Your task to perform on an android device: turn off notifications settings in the gmail app Image 0: 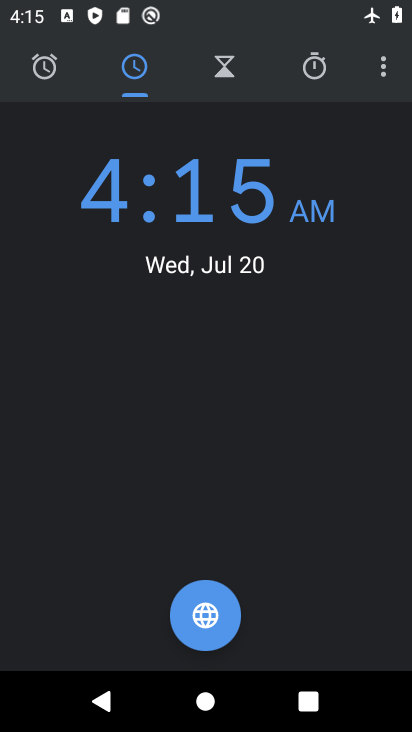
Step 0: press home button
Your task to perform on an android device: turn off notifications settings in the gmail app Image 1: 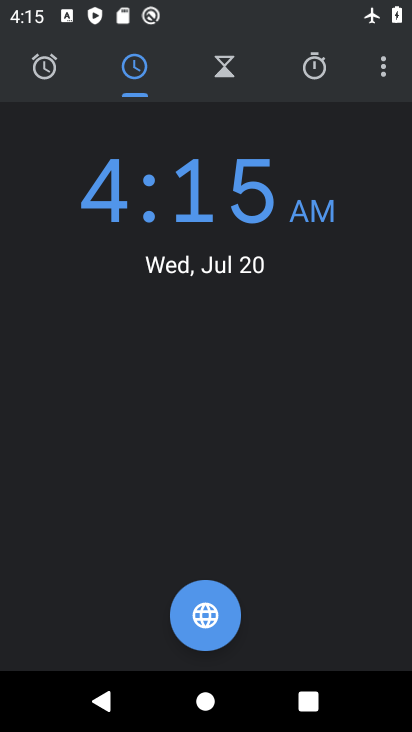
Step 1: press home button
Your task to perform on an android device: turn off notifications settings in the gmail app Image 2: 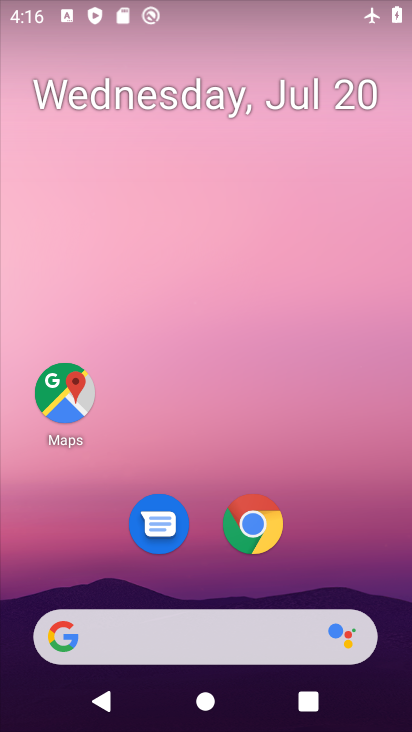
Step 2: drag from (333, 535) to (297, 75)
Your task to perform on an android device: turn off notifications settings in the gmail app Image 3: 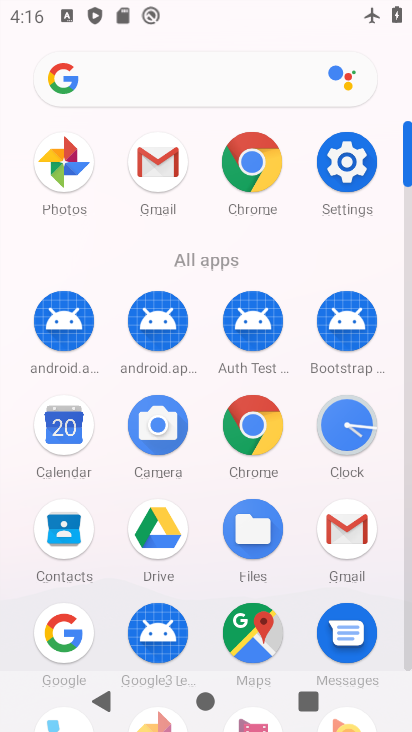
Step 3: click (160, 159)
Your task to perform on an android device: turn off notifications settings in the gmail app Image 4: 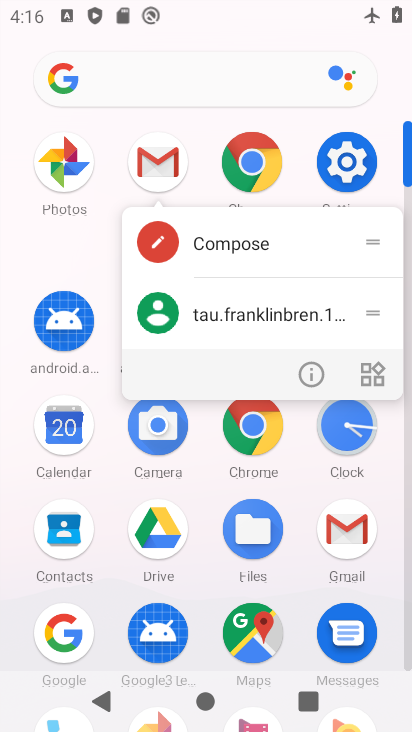
Step 4: click (160, 156)
Your task to perform on an android device: turn off notifications settings in the gmail app Image 5: 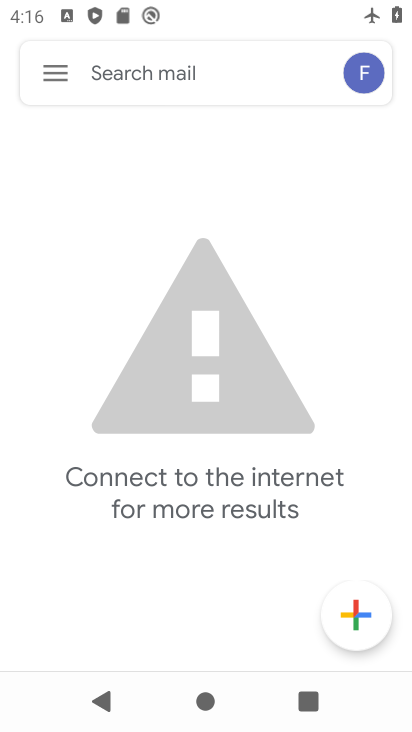
Step 5: click (45, 65)
Your task to perform on an android device: turn off notifications settings in the gmail app Image 6: 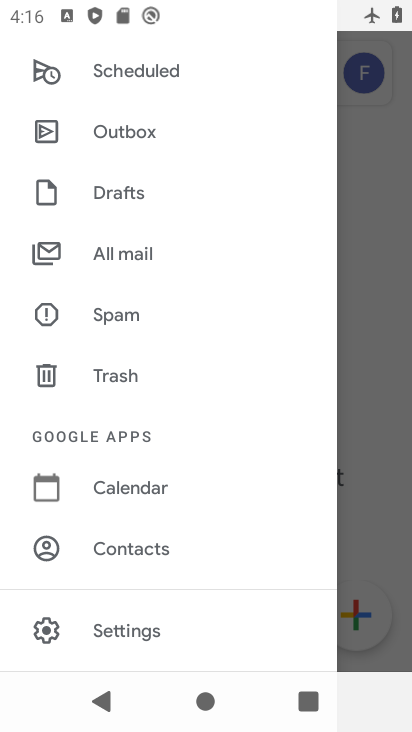
Step 6: click (145, 622)
Your task to perform on an android device: turn off notifications settings in the gmail app Image 7: 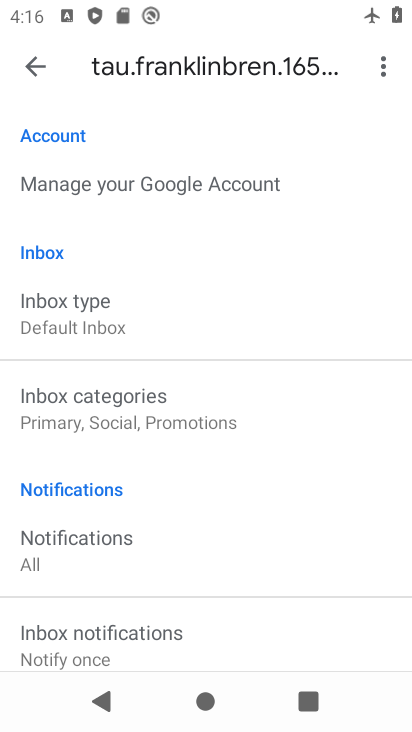
Step 7: drag from (197, 533) to (270, 199)
Your task to perform on an android device: turn off notifications settings in the gmail app Image 8: 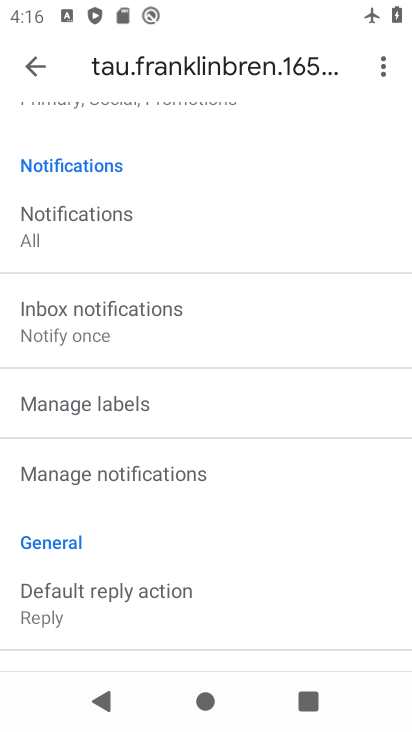
Step 8: click (209, 465)
Your task to perform on an android device: turn off notifications settings in the gmail app Image 9: 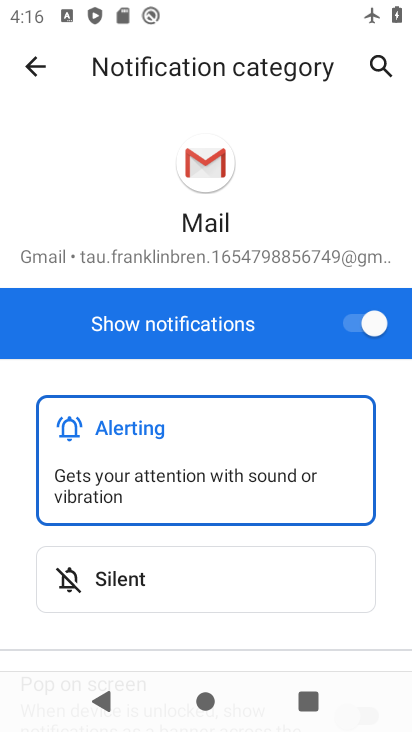
Step 9: click (361, 319)
Your task to perform on an android device: turn off notifications settings in the gmail app Image 10: 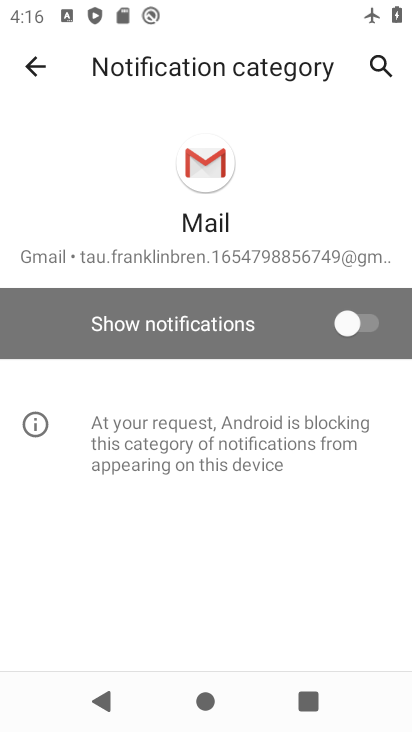
Step 10: task complete